Your task to perform on an android device: turn off improve location accuracy Image 0: 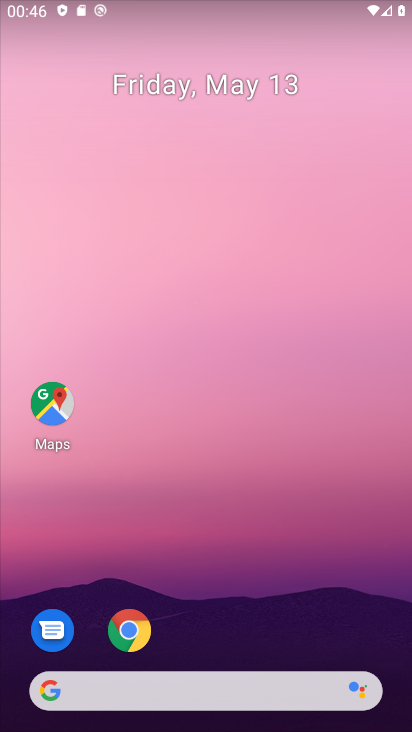
Step 0: drag from (279, 713) to (272, 227)
Your task to perform on an android device: turn off improve location accuracy Image 1: 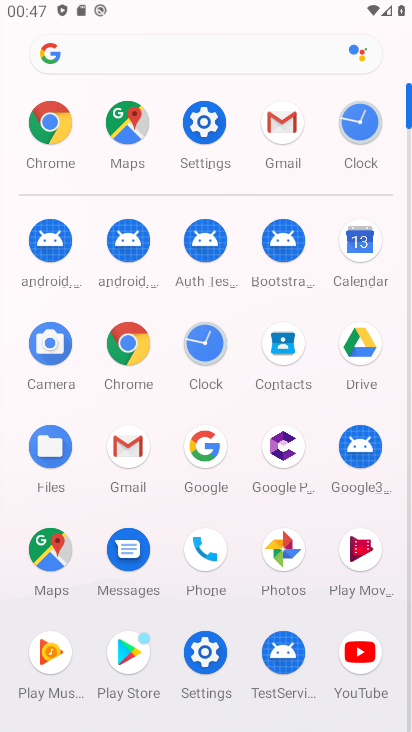
Step 1: click (194, 143)
Your task to perform on an android device: turn off improve location accuracy Image 2: 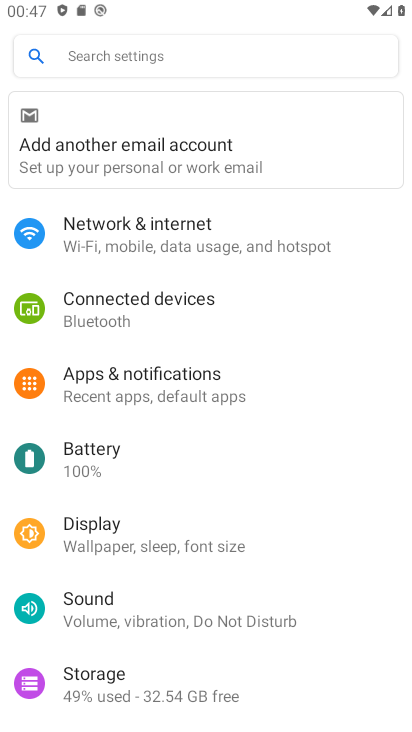
Step 2: click (140, 43)
Your task to perform on an android device: turn off improve location accuracy Image 3: 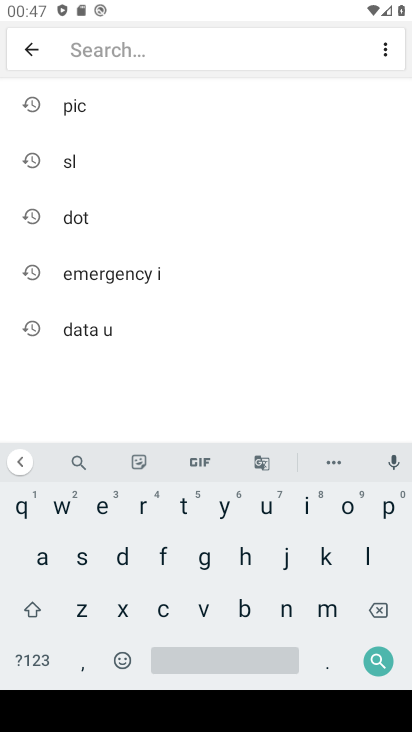
Step 3: click (39, 553)
Your task to perform on an android device: turn off improve location accuracy Image 4: 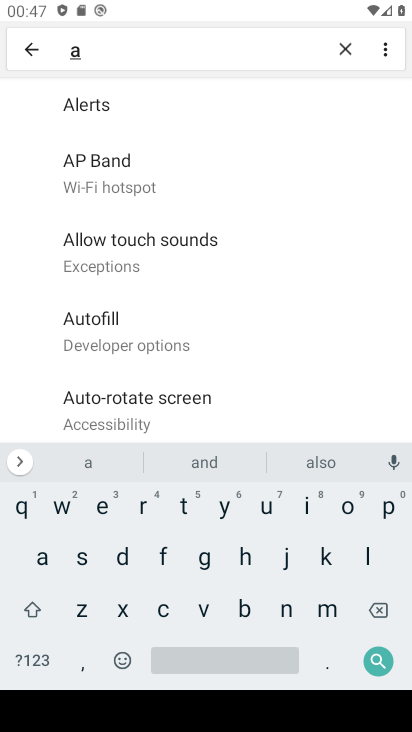
Step 4: click (160, 608)
Your task to perform on an android device: turn off improve location accuracy Image 5: 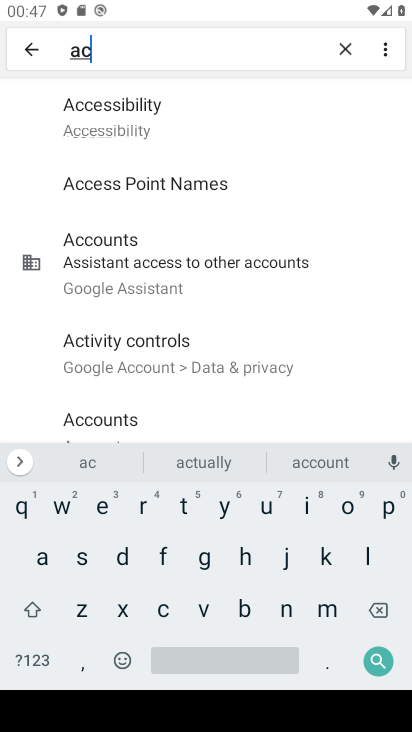
Step 5: click (344, 52)
Your task to perform on an android device: turn off improve location accuracy Image 6: 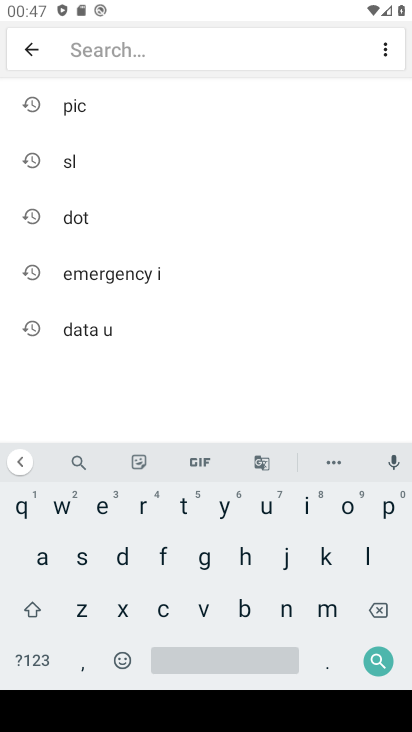
Step 6: click (368, 557)
Your task to perform on an android device: turn off improve location accuracy Image 7: 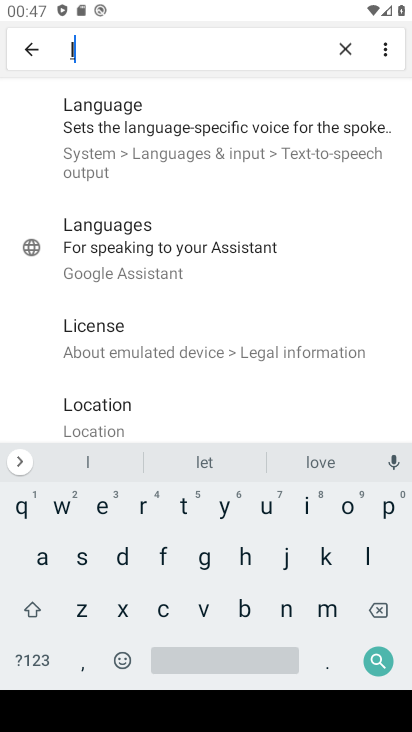
Step 7: click (342, 515)
Your task to perform on an android device: turn off improve location accuracy Image 8: 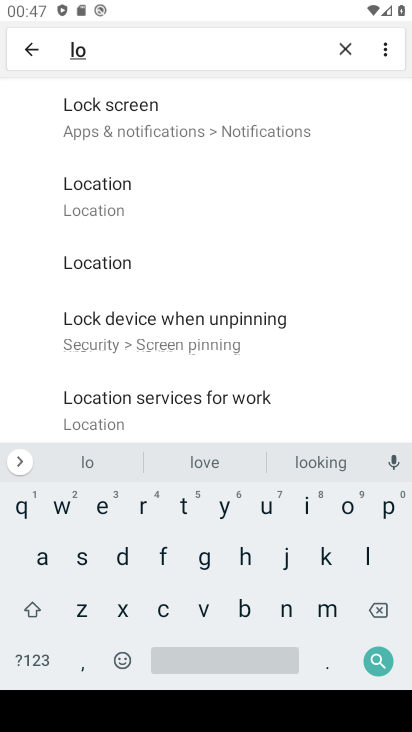
Step 8: click (141, 206)
Your task to perform on an android device: turn off improve location accuracy Image 9: 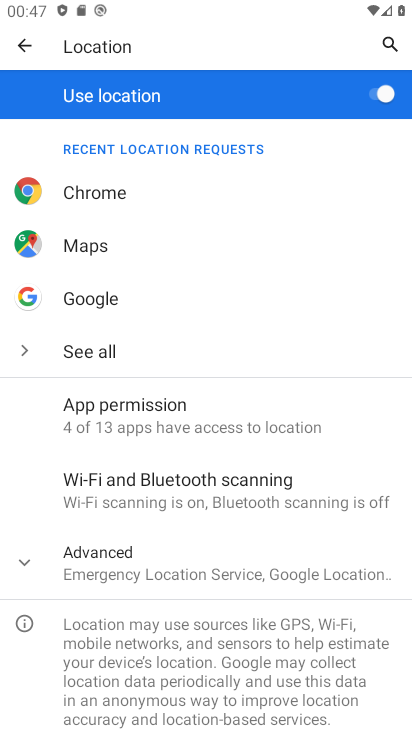
Step 9: click (46, 568)
Your task to perform on an android device: turn off improve location accuracy Image 10: 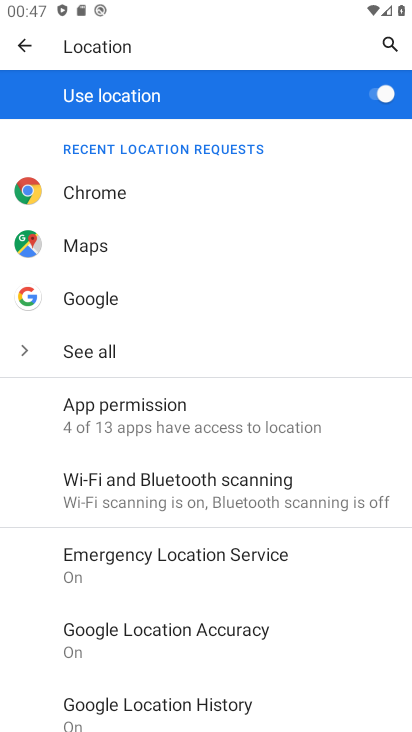
Step 10: click (181, 635)
Your task to perform on an android device: turn off improve location accuracy Image 11: 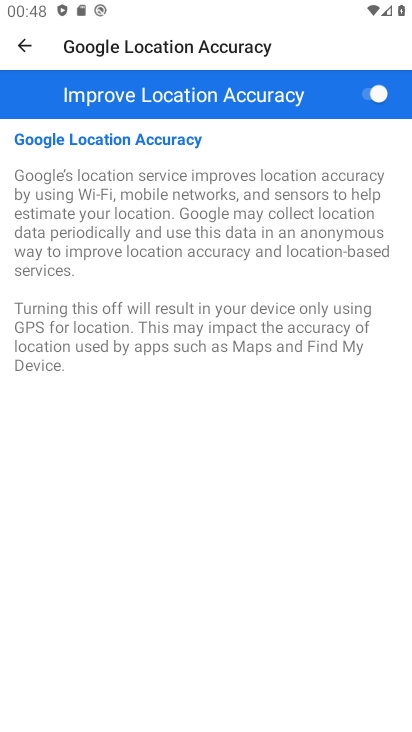
Step 11: click (339, 104)
Your task to perform on an android device: turn off improve location accuracy Image 12: 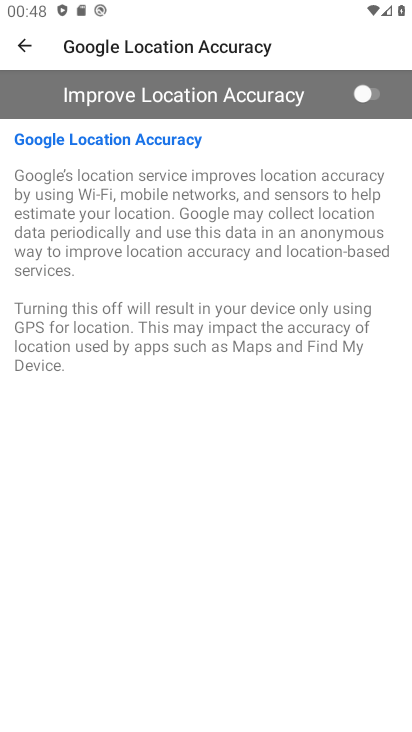
Step 12: task complete